Your task to perform on an android device: turn off translation in the chrome app Image 0: 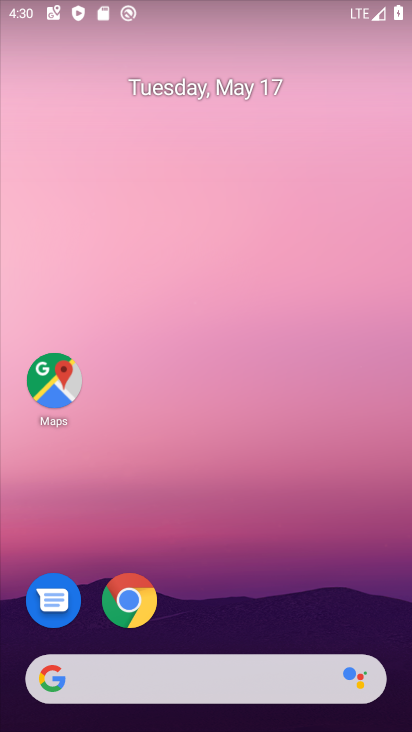
Step 0: click (134, 596)
Your task to perform on an android device: turn off translation in the chrome app Image 1: 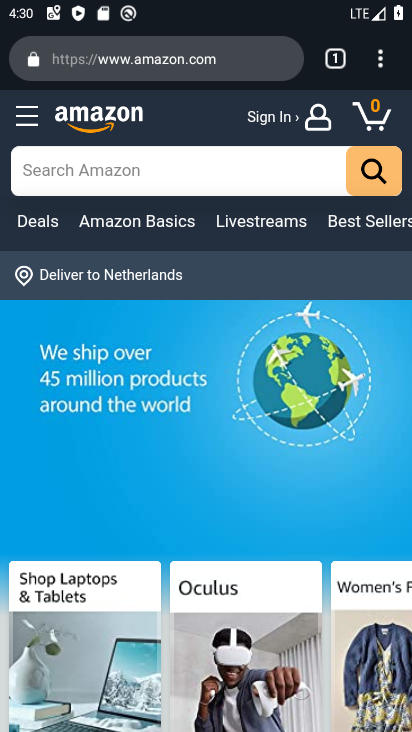
Step 1: click (377, 59)
Your task to perform on an android device: turn off translation in the chrome app Image 2: 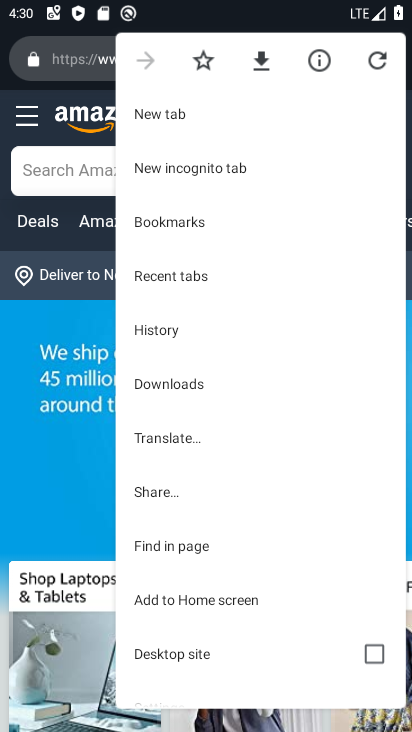
Step 2: click (308, 244)
Your task to perform on an android device: turn off translation in the chrome app Image 3: 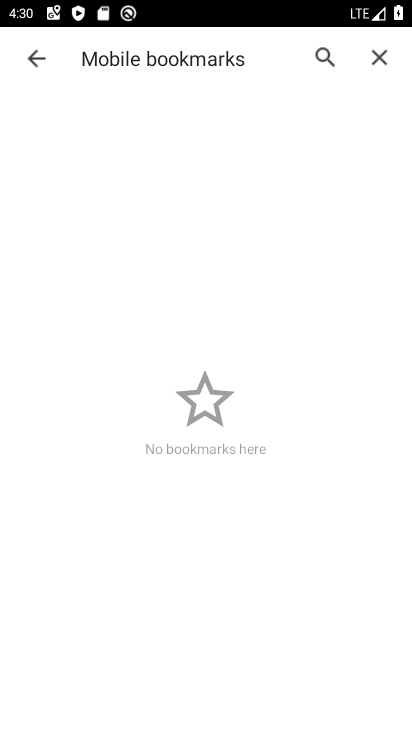
Step 3: click (377, 58)
Your task to perform on an android device: turn off translation in the chrome app Image 4: 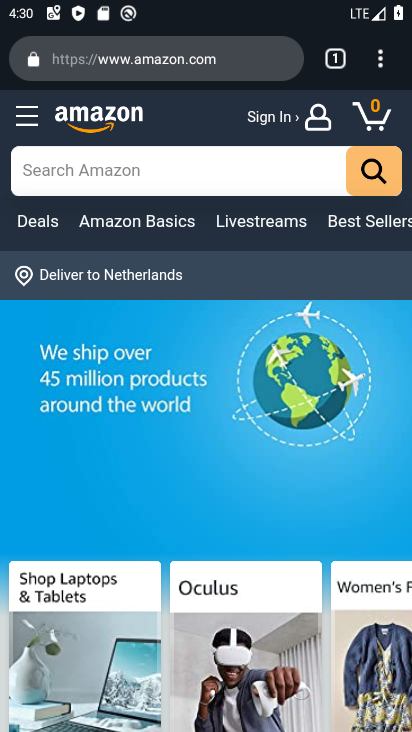
Step 4: click (374, 65)
Your task to perform on an android device: turn off translation in the chrome app Image 5: 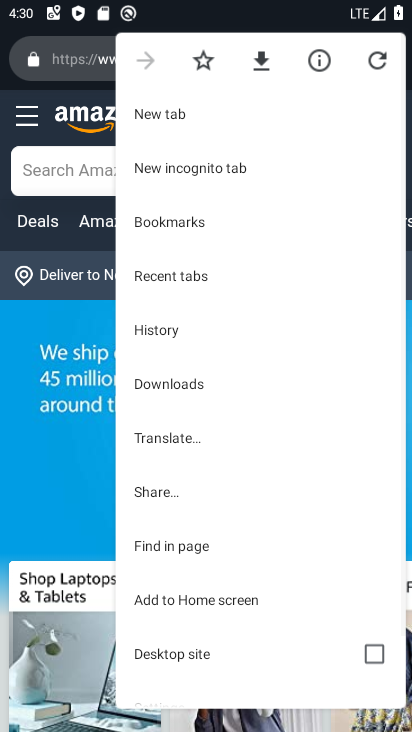
Step 5: drag from (357, 600) to (305, 136)
Your task to perform on an android device: turn off translation in the chrome app Image 6: 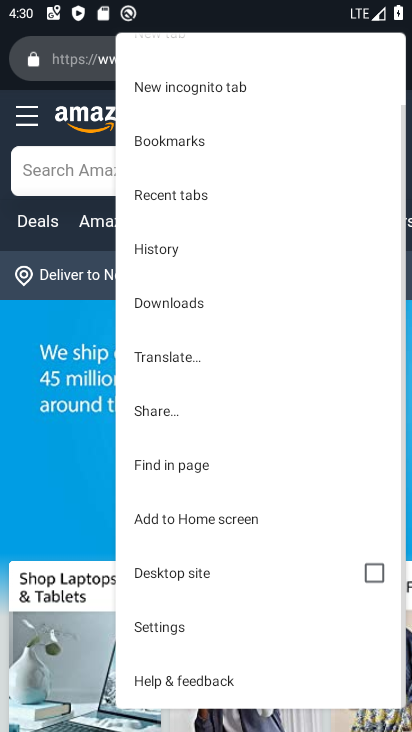
Step 6: click (192, 611)
Your task to perform on an android device: turn off translation in the chrome app Image 7: 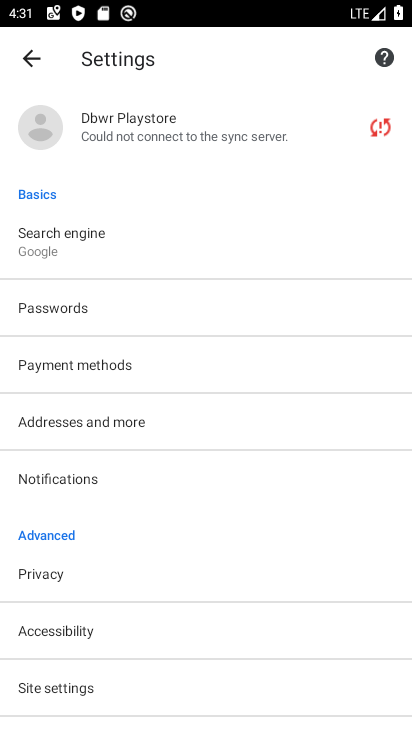
Step 7: drag from (188, 633) to (175, 312)
Your task to perform on an android device: turn off translation in the chrome app Image 8: 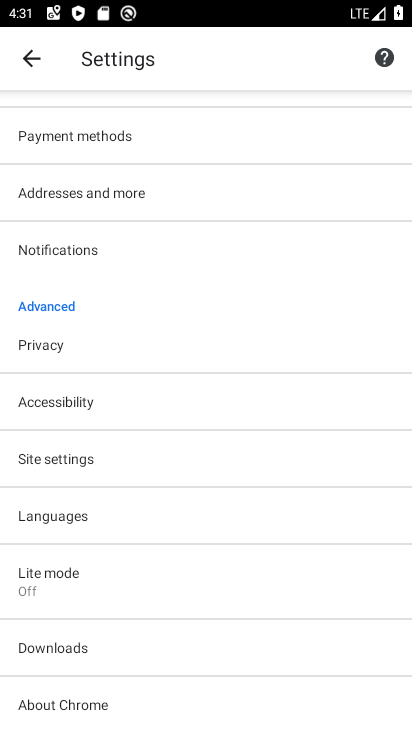
Step 8: click (70, 510)
Your task to perform on an android device: turn off translation in the chrome app Image 9: 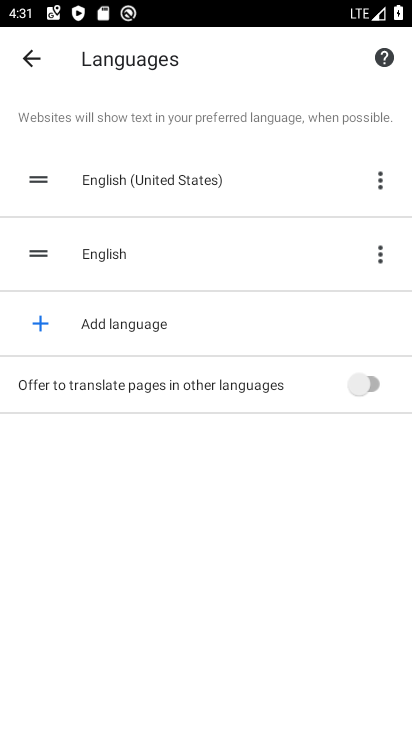
Step 9: task complete